Your task to perform on an android device: toggle notifications settings in the gmail app Image 0: 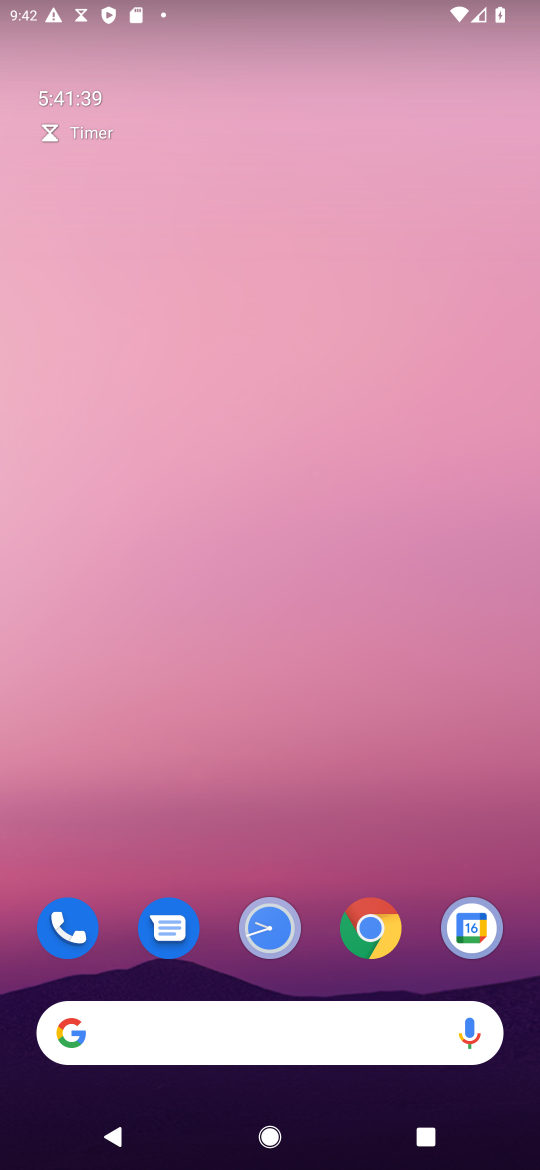
Step 0: press home button
Your task to perform on an android device: toggle notifications settings in the gmail app Image 1: 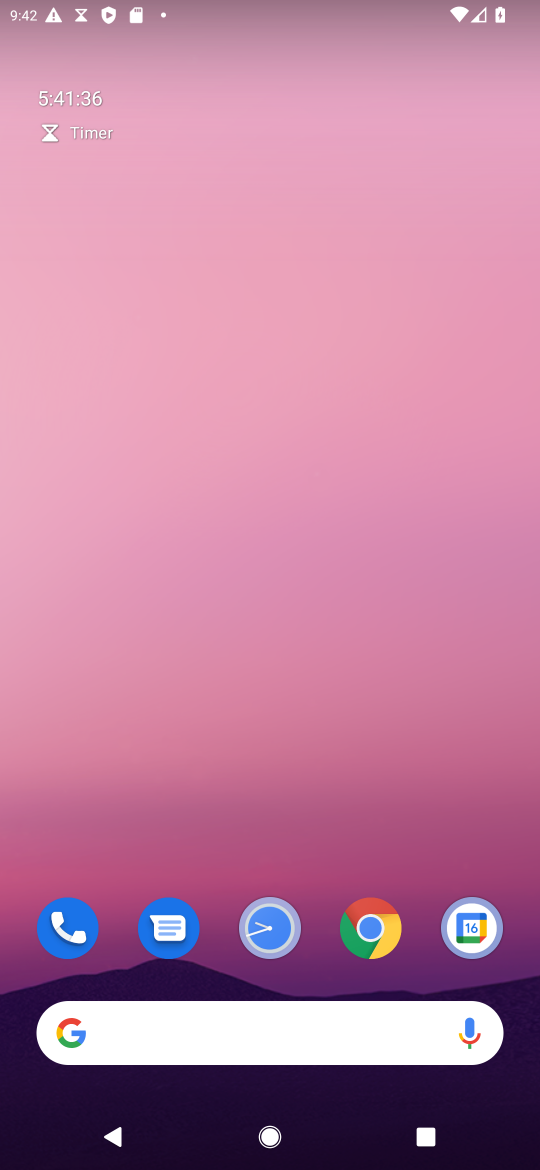
Step 1: drag from (294, 821) to (299, 85)
Your task to perform on an android device: toggle notifications settings in the gmail app Image 2: 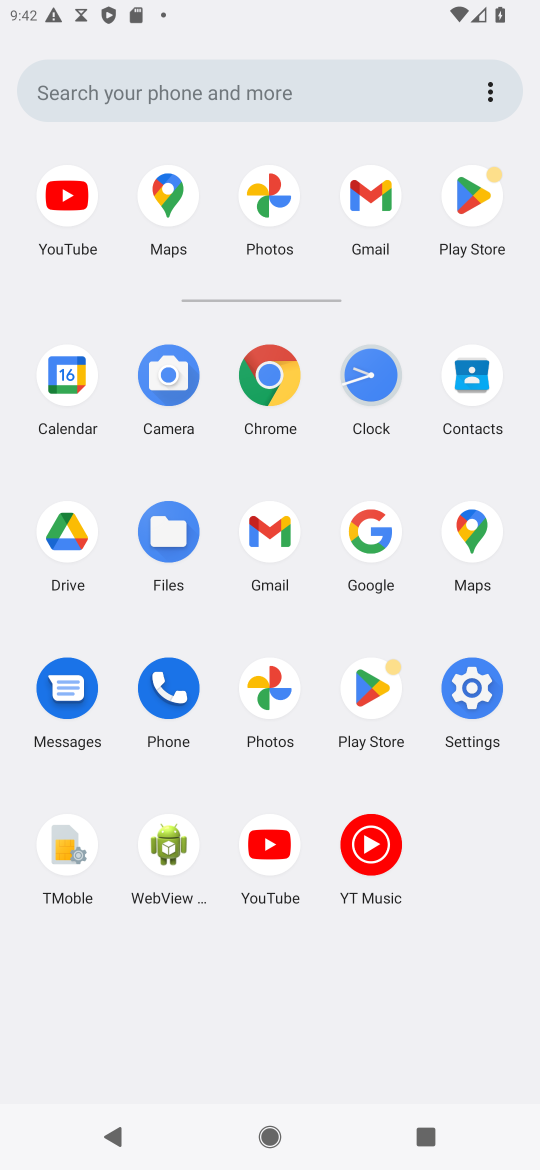
Step 2: click (269, 528)
Your task to perform on an android device: toggle notifications settings in the gmail app Image 3: 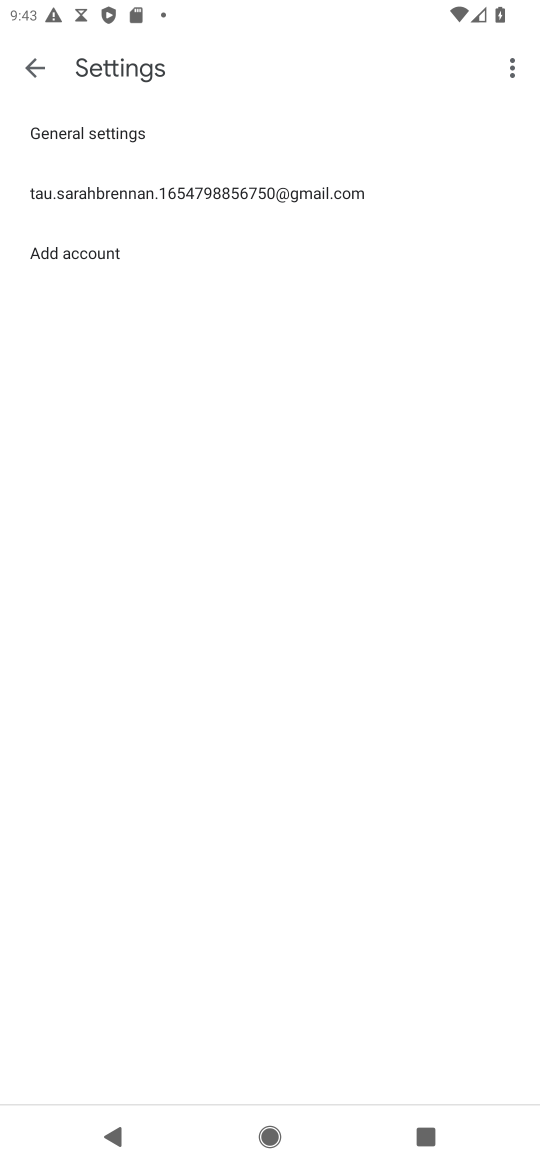
Step 3: click (135, 194)
Your task to perform on an android device: toggle notifications settings in the gmail app Image 4: 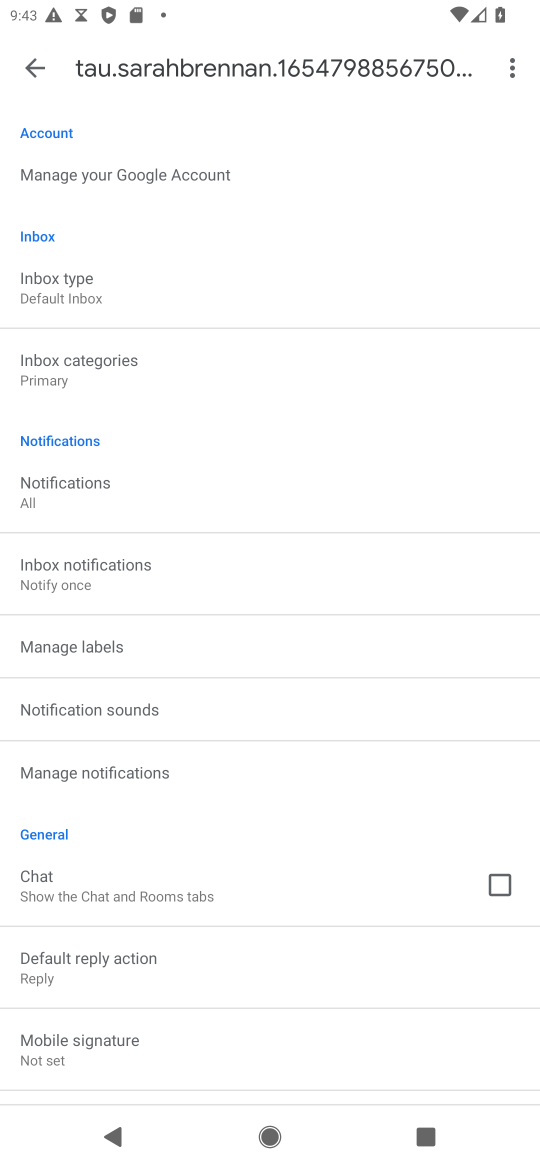
Step 4: click (80, 780)
Your task to perform on an android device: toggle notifications settings in the gmail app Image 5: 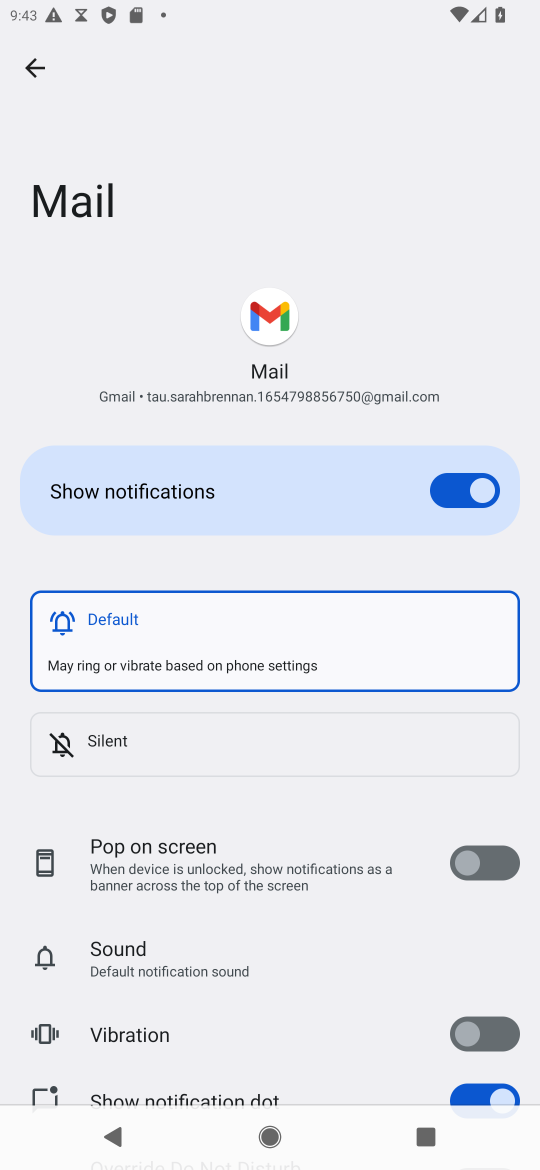
Step 5: click (439, 488)
Your task to perform on an android device: toggle notifications settings in the gmail app Image 6: 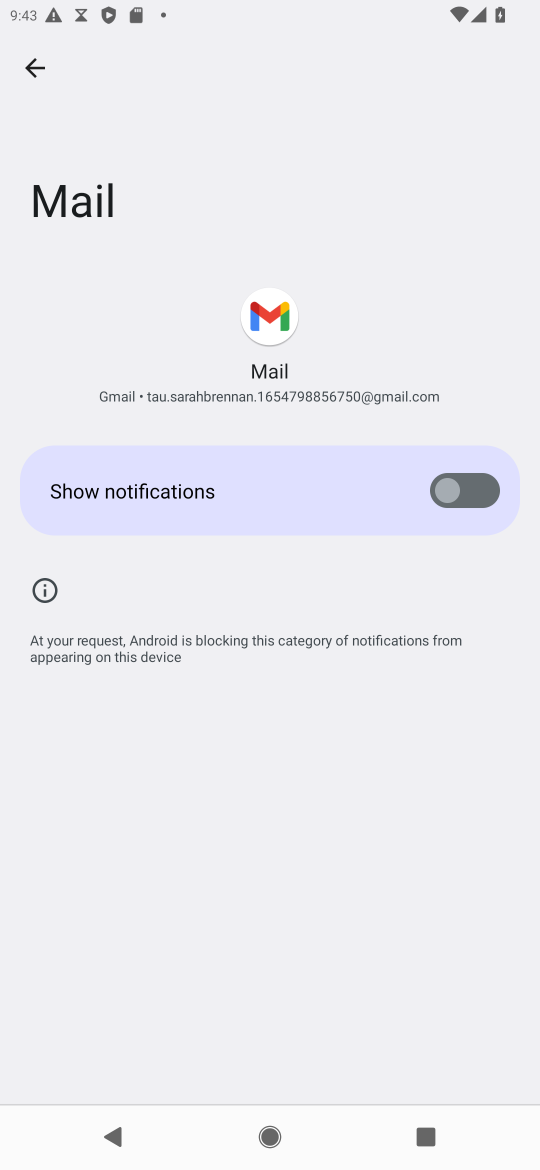
Step 6: task complete